Your task to perform on an android device: turn off airplane mode Image 0: 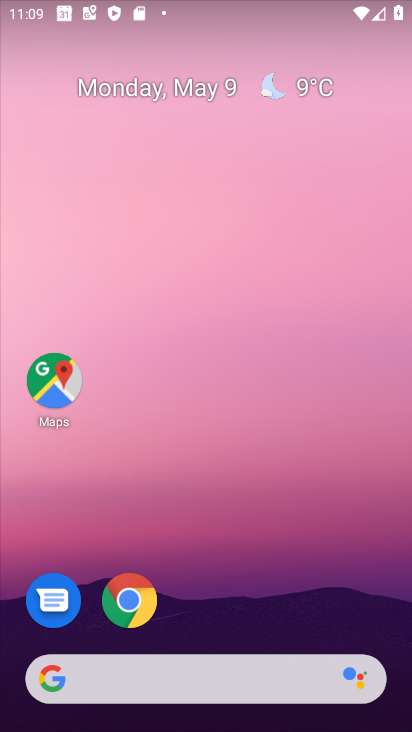
Step 0: drag from (331, 553) to (261, 109)
Your task to perform on an android device: turn off airplane mode Image 1: 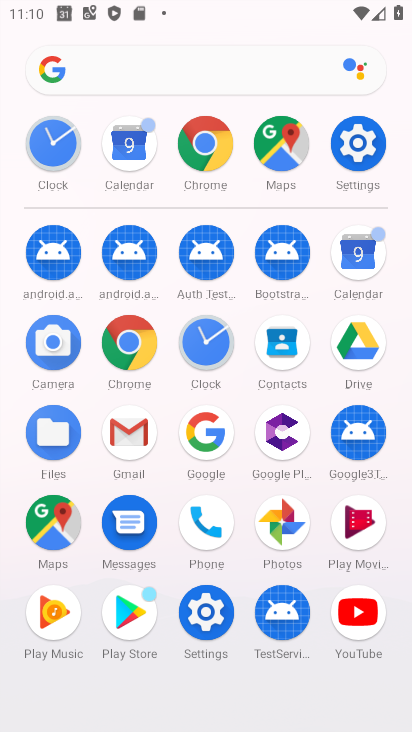
Step 1: click (364, 150)
Your task to perform on an android device: turn off airplane mode Image 2: 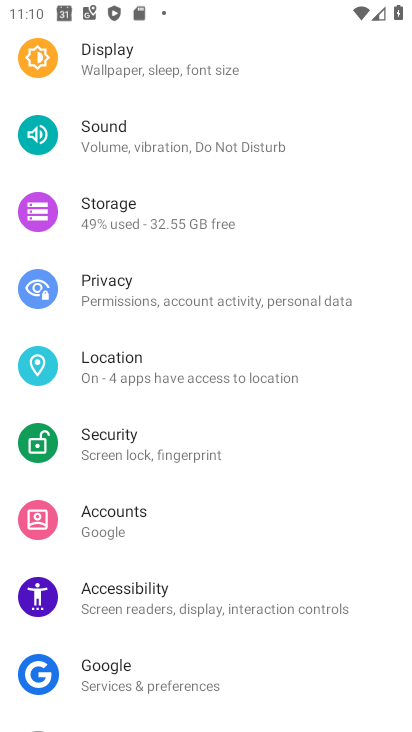
Step 2: drag from (259, 132) to (218, 643)
Your task to perform on an android device: turn off airplane mode Image 3: 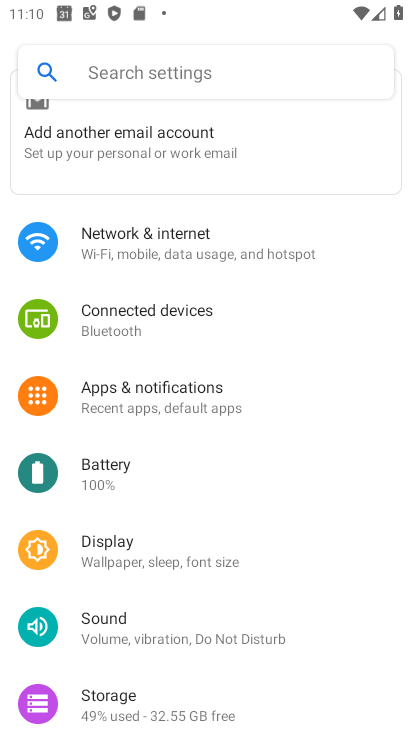
Step 3: click (148, 246)
Your task to perform on an android device: turn off airplane mode Image 4: 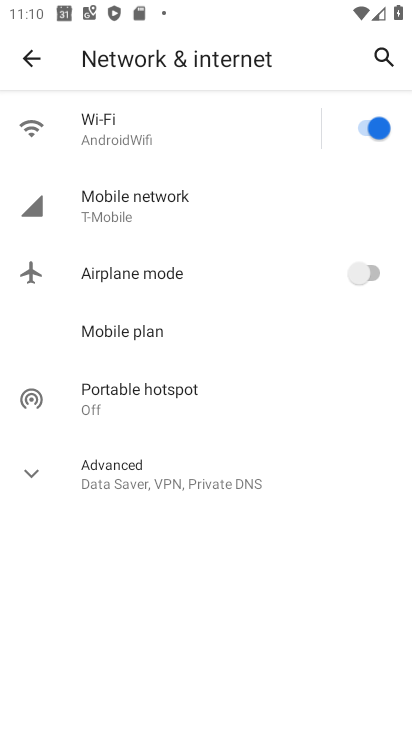
Step 4: task complete